Your task to perform on an android device: toggle wifi Image 0: 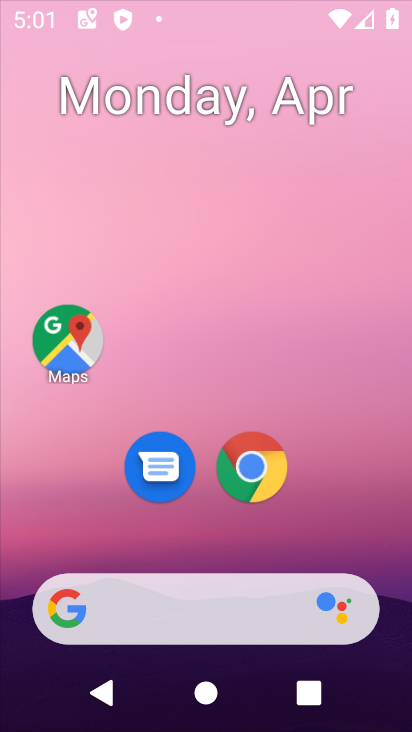
Step 0: click (362, 31)
Your task to perform on an android device: toggle wifi Image 1: 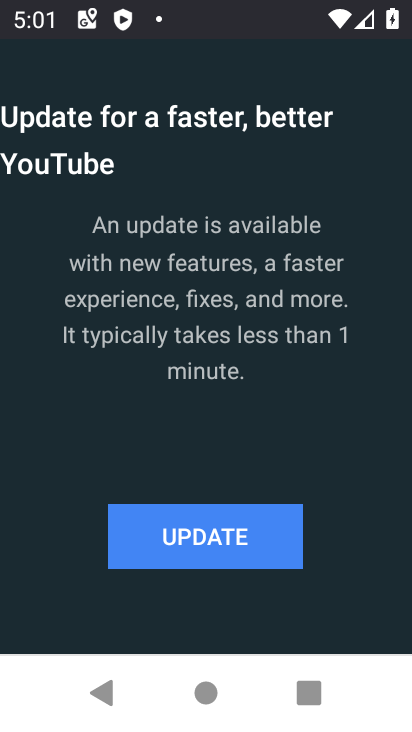
Step 1: press home button
Your task to perform on an android device: toggle wifi Image 2: 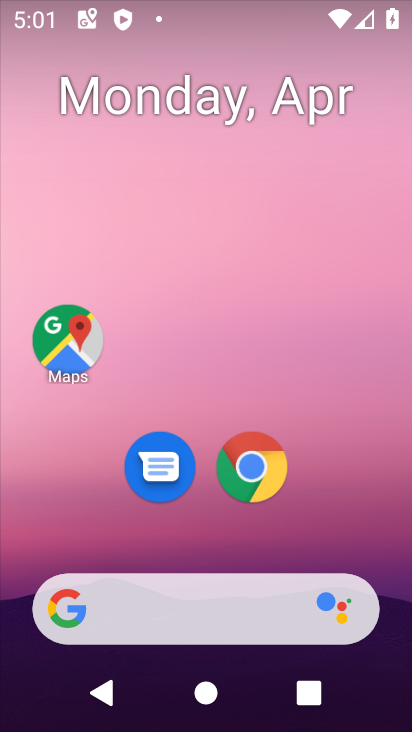
Step 2: drag from (295, 607) to (397, 106)
Your task to perform on an android device: toggle wifi Image 3: 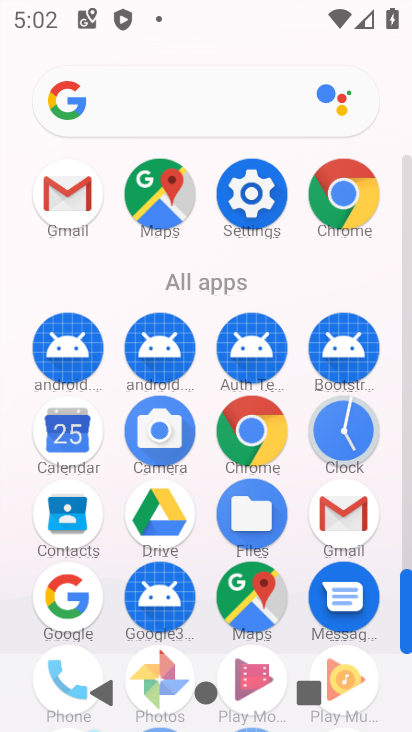
Step 3: click (277, 204)
Your task to perform on an android device: toggle wifi Image 4: 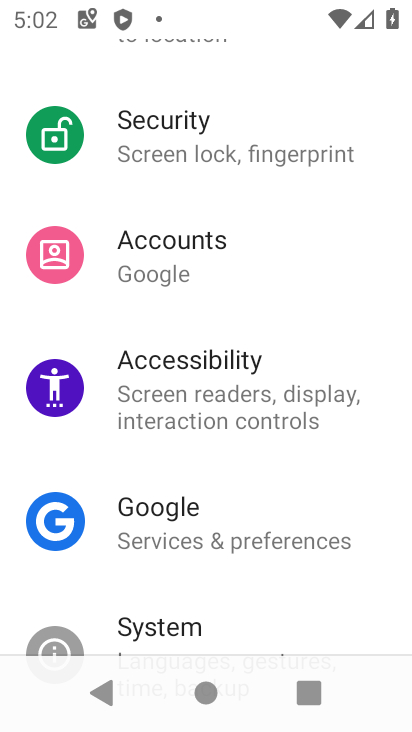
Step 4: drag from (262, 98) to (205, 601)
Your task to perform on an android device: toggle wifi Image 5: 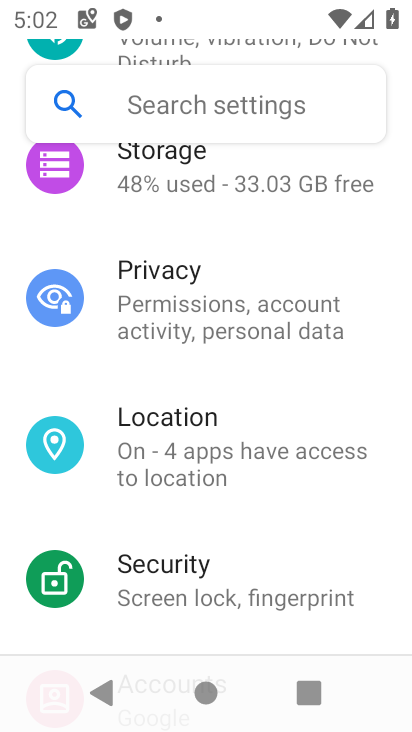
Step 5: drag from (264, 215) to (365, 650)
Your task to perform on an android device: toggle wifi Image 6: 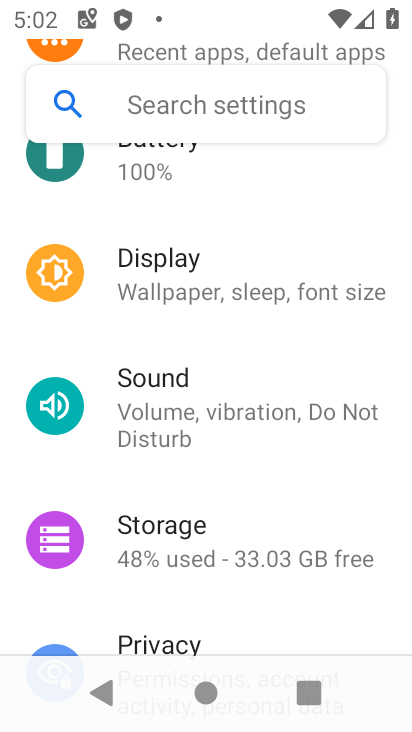
Step 6: drag from (239, 208) to (219, 639)
Your task to perform on an android device: toggle wifi Image 7: 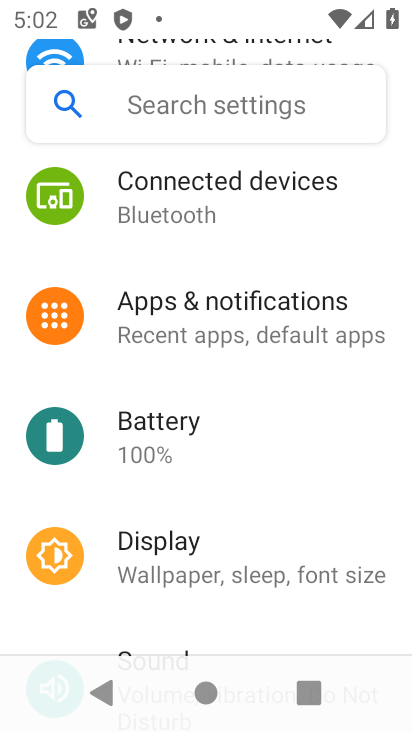
Step 7: drag from (195, 193) to (324, 662)
Your task to perform on an android device: toggle wifi Image 8: 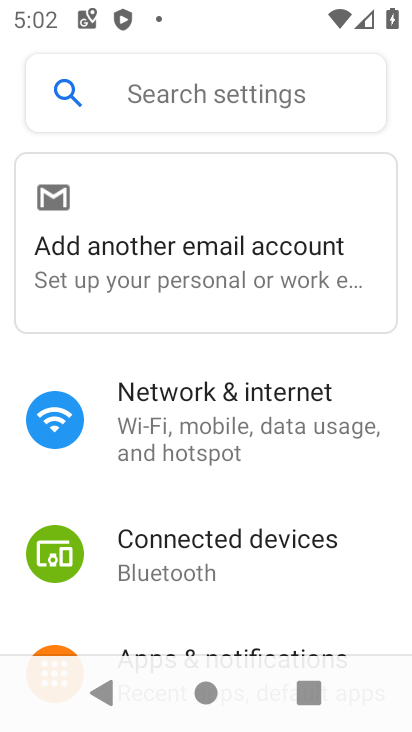
Step 8: click (251, 436)
Your task to perform on an android device: toggle wifi Image 9: 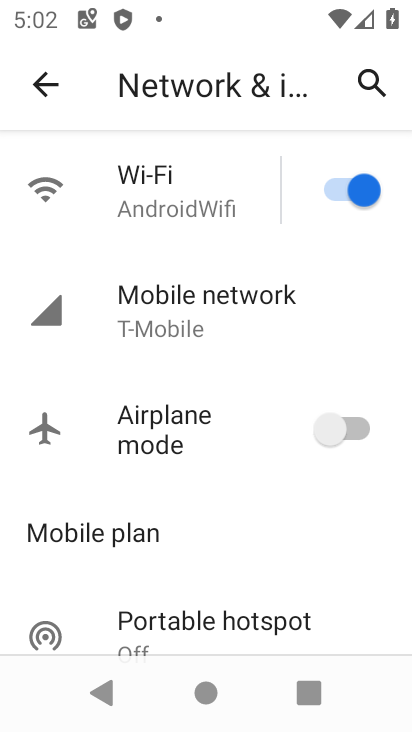
Step 9: click (326, 190)
Your task to perform on an android device: toggle wifi Image 10: 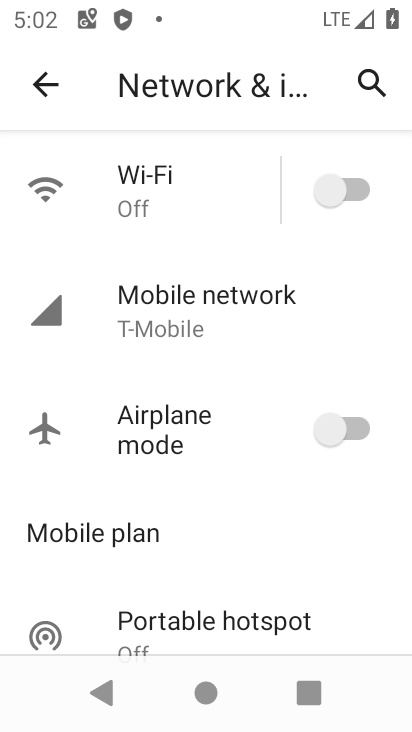
Step 10: task complete